Your task to perform on an android device: Empty the shopping cart on bestbuy.com. Add logitech g903 to the cart on bestbuy.com Image 0: 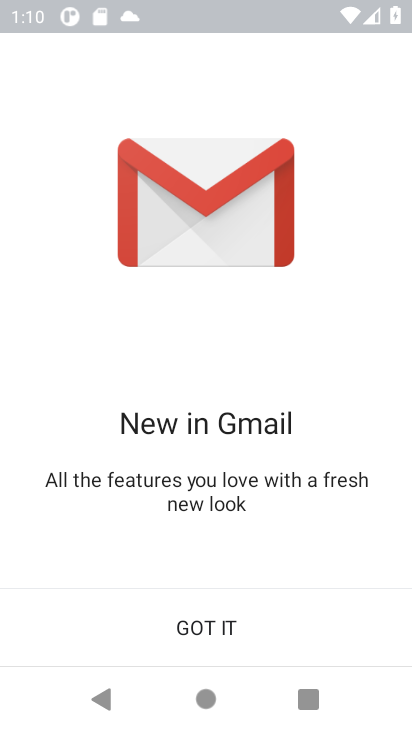
Step 0: press home button
Your task to perform on an android device: Empty the shopping cart on bestbuy.com. Add logitech g903 to the cart on bestbuy.com Image 1: 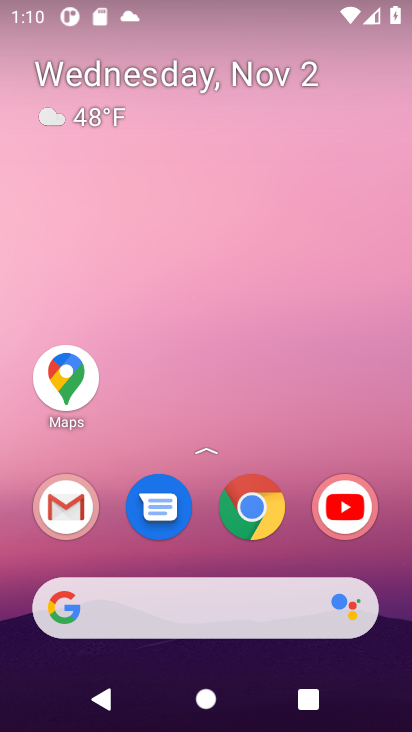
Step 1: click (176, 605)
Your task to perform on an android device: Empty the shopping cart on bestbuy.com. Add logitech g903 to the cart on bestbuy.com Image 2: 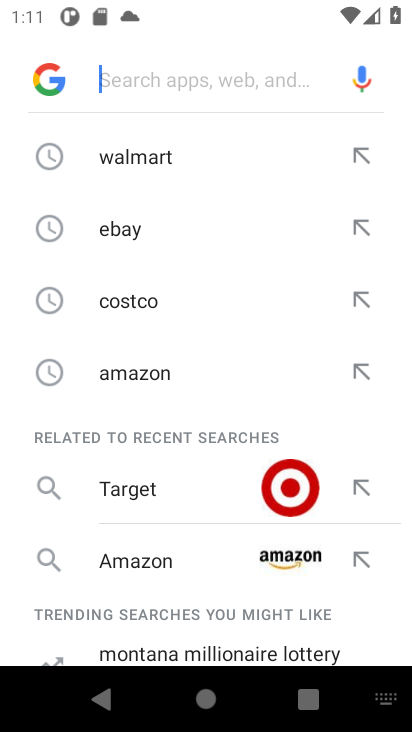
Step 2: type "bestbuy.com"
Your task to perform on an android device: Empty the shopping cart on bestbuy.com. Add logitech g903 to the cart on bestbuy.com Image 3: 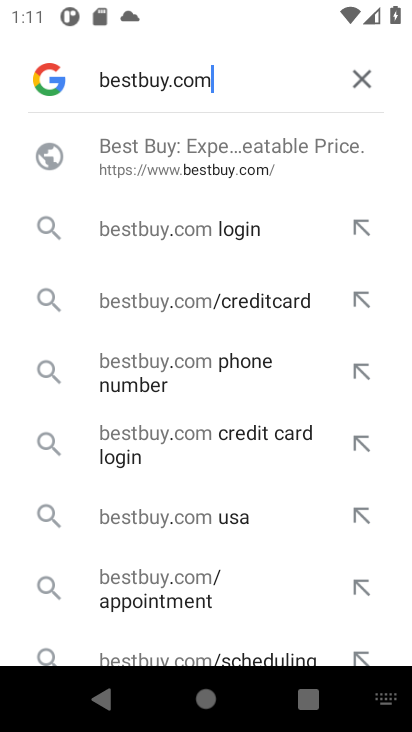
Step 3: type ""
Your task to perform on an android device: Empty the shopping cart on bestbuy.com. Add logitech g903 to the cart on bestbuy.com Image 4: 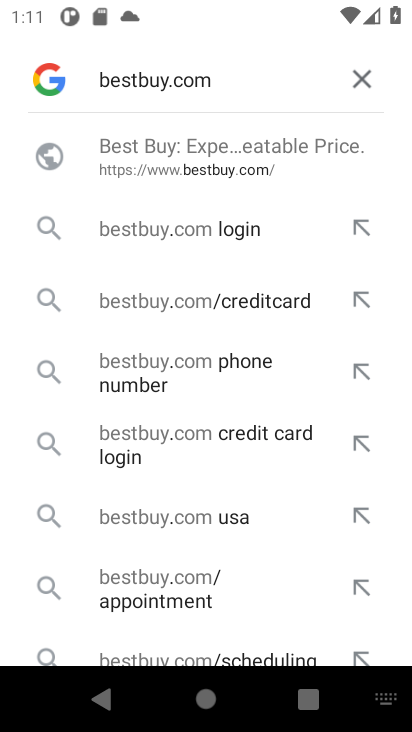
Step 4: click (185, 175)
Your task to perform on an android device: Empty the shopping cart on bestbuy.com. Add logitech g903 to the cart on bestbuy.com Image 5: 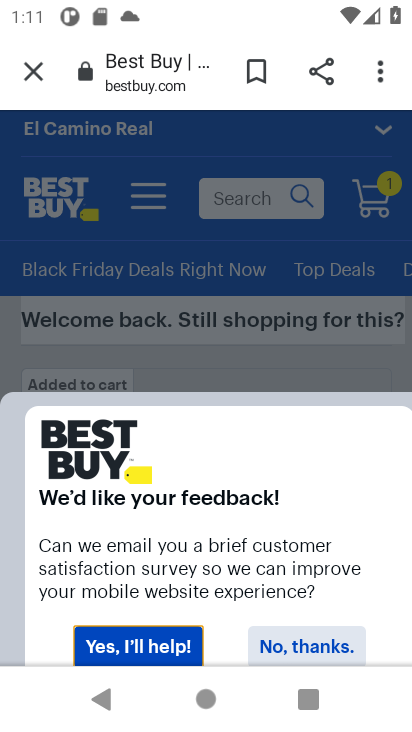
Step 5: click (255, 640)
Your task to perform on an android device: Empty the shopping cart on bestbuy.com. Add logitech g903 to the cart on bestbuy.com Image 6: 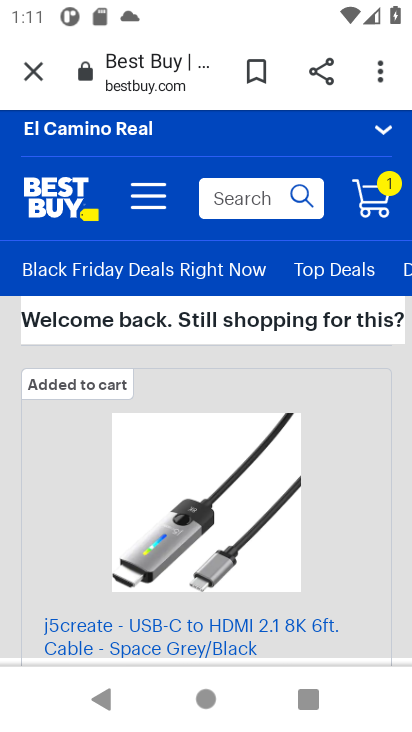
Step 6: drag from (288, 534) to (311, 249)
Your task to perform on an android device: Empty the shopping cart on bestbuy.com. Add logitech g903 to the cart on bestbuy.com Image 7: 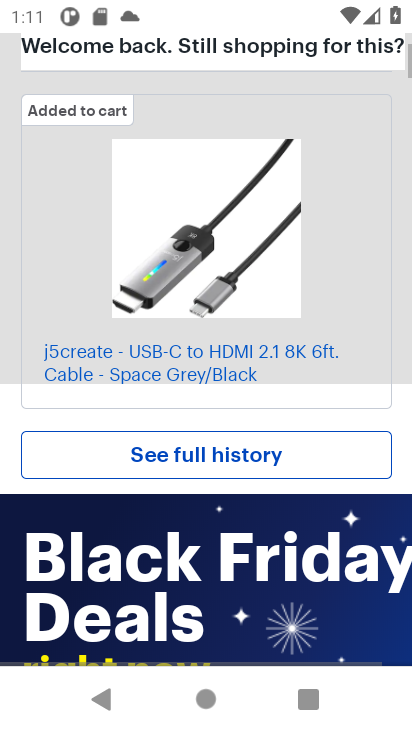
Step 7: drag from (314, 515) to (336, 382)
Your task to perform on an android device: Empty the shopping cart on bestbuy.com. Add logitech g903 to the cart on bestbuy.com Image 8: 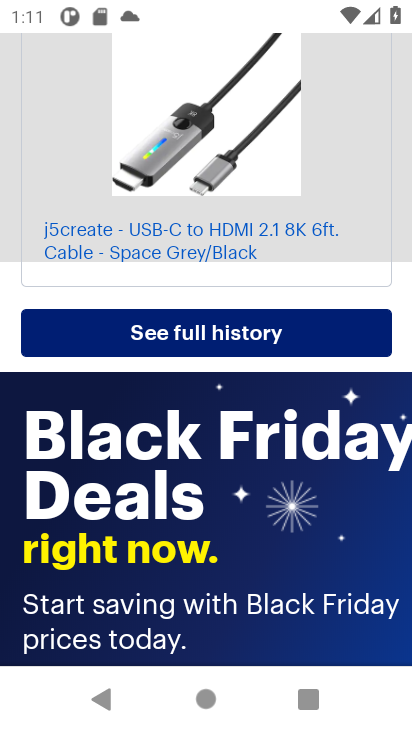
Step 8: drag from (289, 433) to (308, 204)
Your task to perform on an android device: Empty the shopping cart on bestbuy.com. Add logitech g903 to the cart on bestbuy.com Image 9: 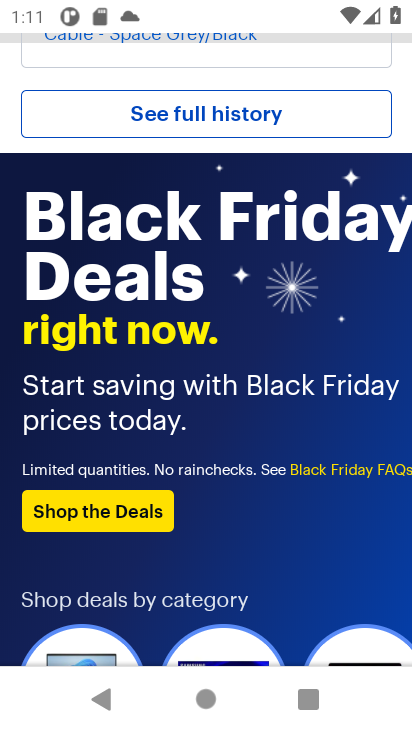
Step 9: drag from (312, 211) to (316, 459)
Your task to perform on an android device: Empty the shopping cart on bestbuy.com. Add logitech g903 to the cart on bestbuy.com Image 10: 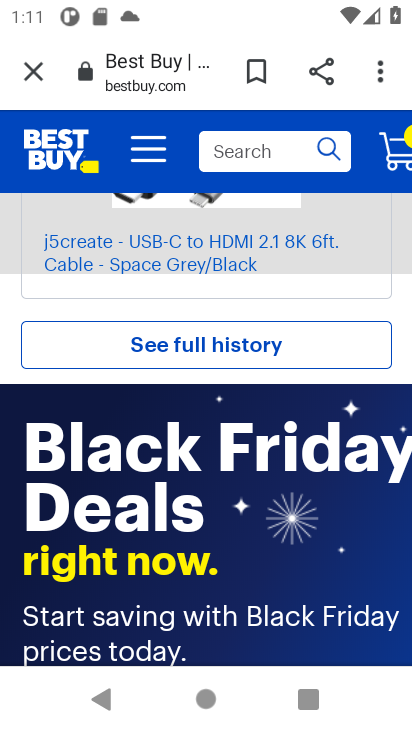
Step 10: click (287, 347)
Your task to perform on an android device: Empty the shopping cart on bestbuy.com. Add logitech g903 to the cart on bestbuy.com Image 11: 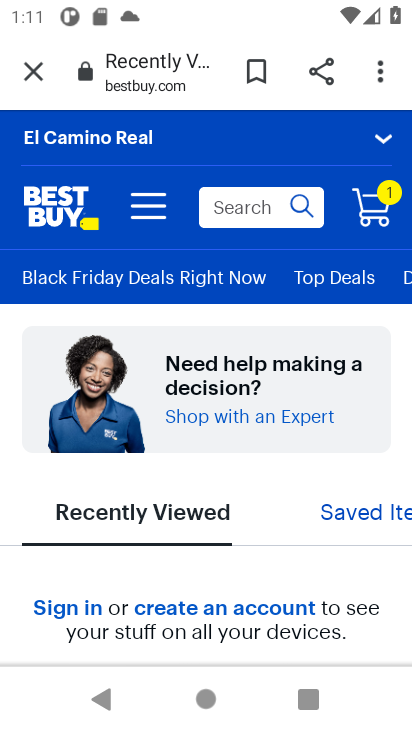
Step 11: drag from (306, 541) to (249, 337)
Your task to perform on an android device: Empty the shopping cart on bestbuy.com. Add logitech g903 to the cart on bestbuy.com Image 12: 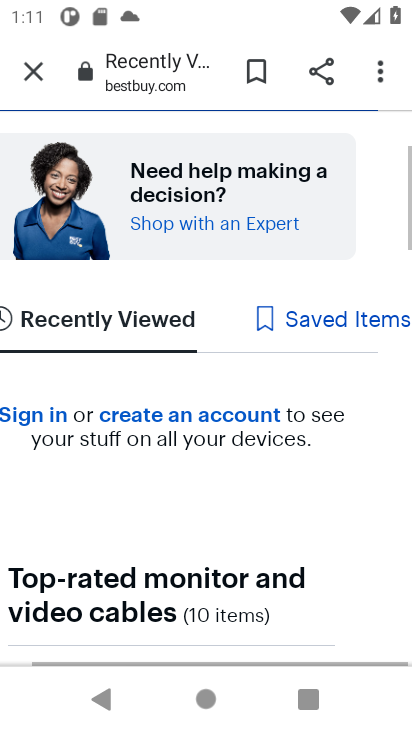
Step 12: click (219, 355)
Your task to perform on an android device: Empty the shopping cart on bestbuy.com. Add logitech g903 to the cart on bestbuy.com Image 13: 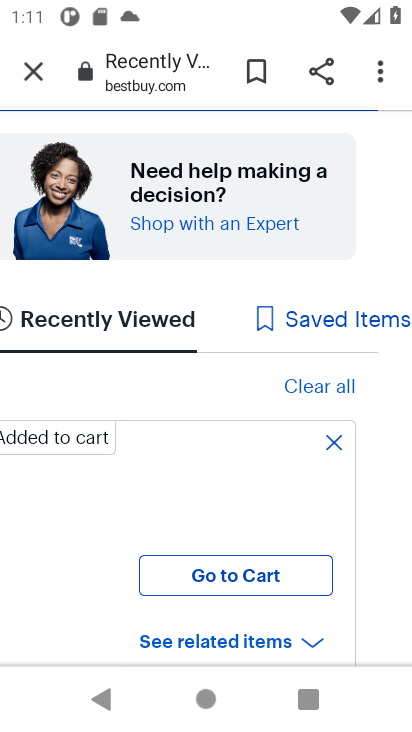
Step 13: task complete